Your task to perform on an android device: install app "Gboard" Image 0: 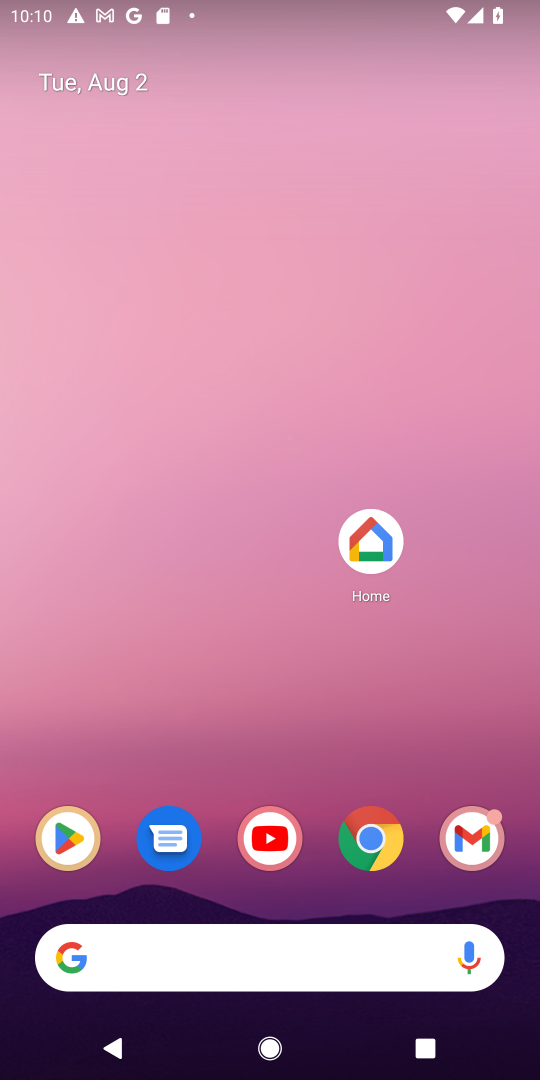
Step 0: drag from (224, 711) to (260, 172)
Your task to perform on an android device: install app "Gboard" Image 1: 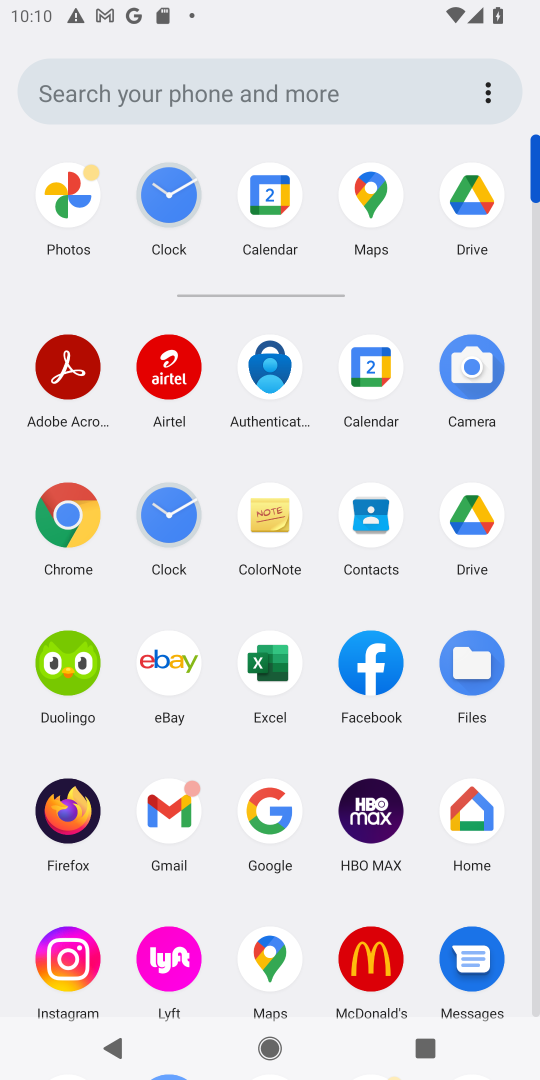
Step 1: drag from (210, 888) to (222, 506)
Your task to perform on an android device: install app "Gboard" Image 2: 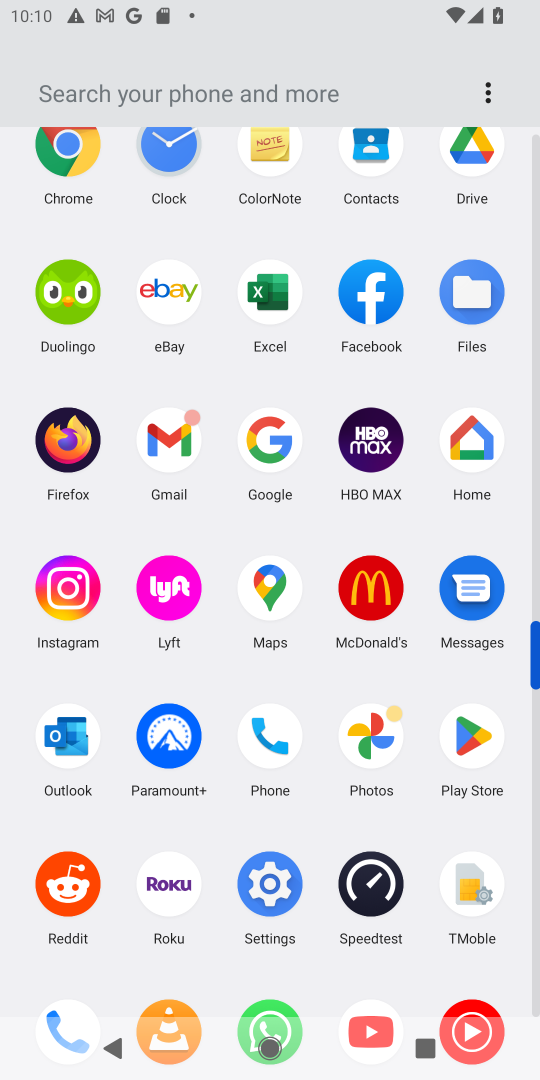
Step 2: drag from (217, 956) to (232, 641)
Your task to perform on an android device: install app "Gboard" Image 3: 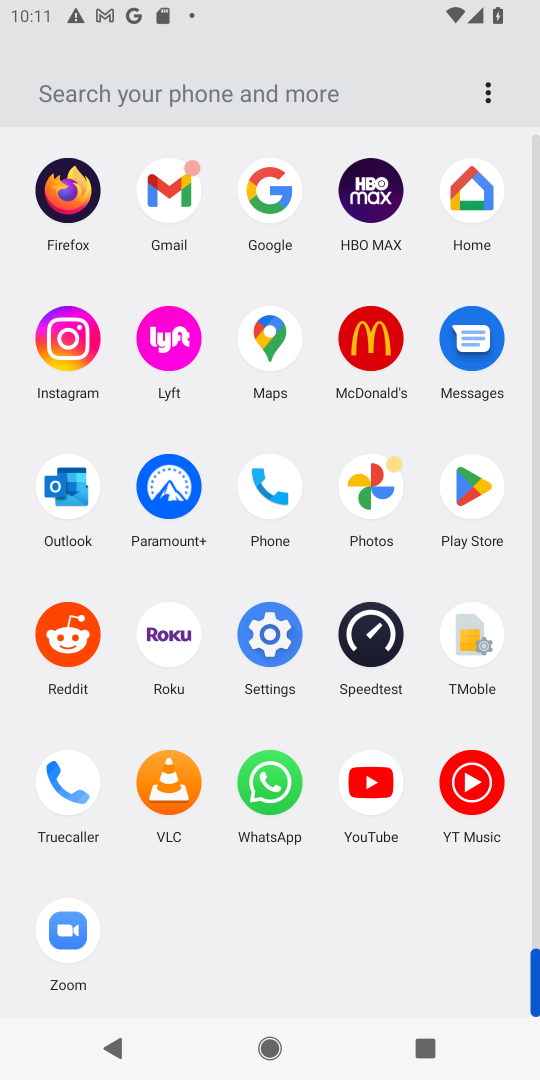
Step 3: click (470, 488)
Your task to perform on an android device: install app "Gboard" Image 4: 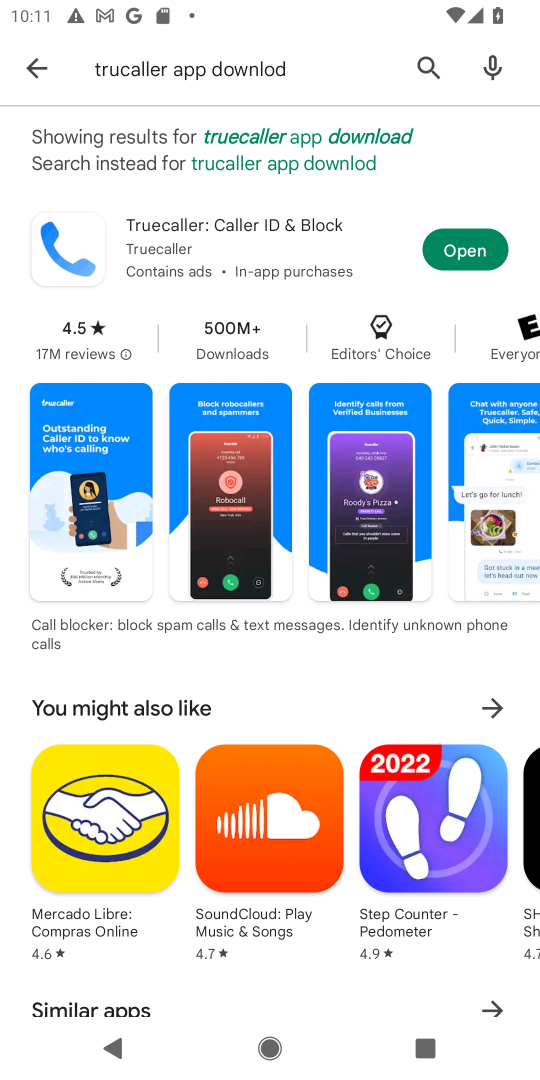
Step 4: click (422, 63)
Your task to perform on an android device: install app "Gboard" Image 5: 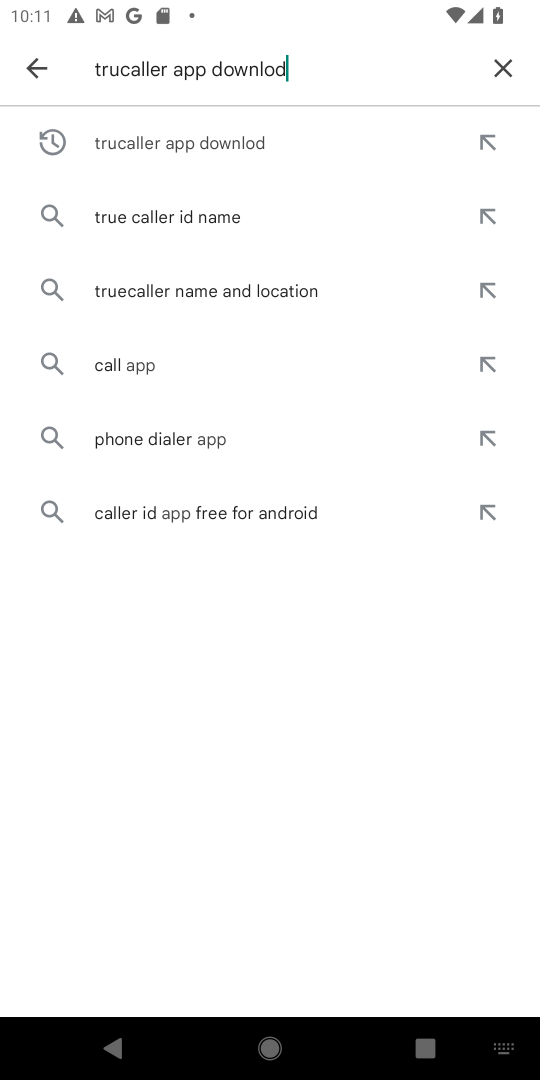
Step 5: click (501, 65)
Your task to perform on an android device: install app "Gboard" Image 6: 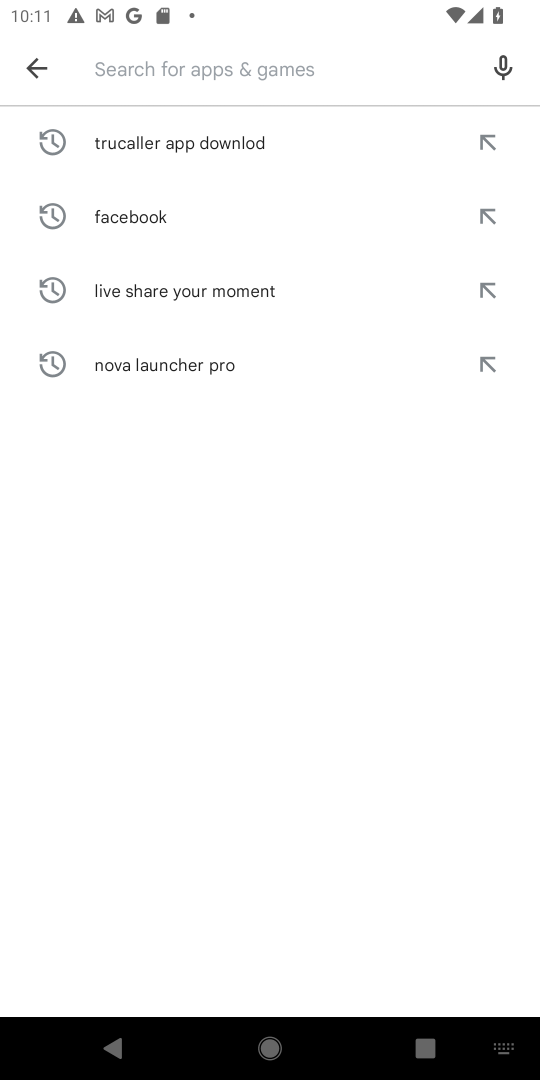
Step 6: type "gboard"
Your task to perform on an android device: install app "Gboard" Image 7: 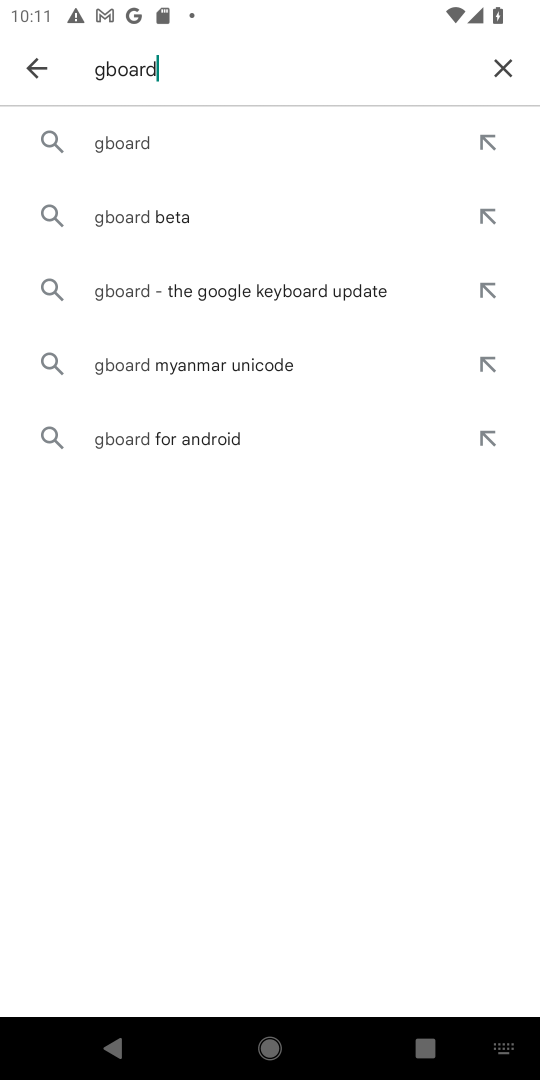
Step 7: click (188, 140)
Your task to perform on an android device: install app "Gboard" Image 8: 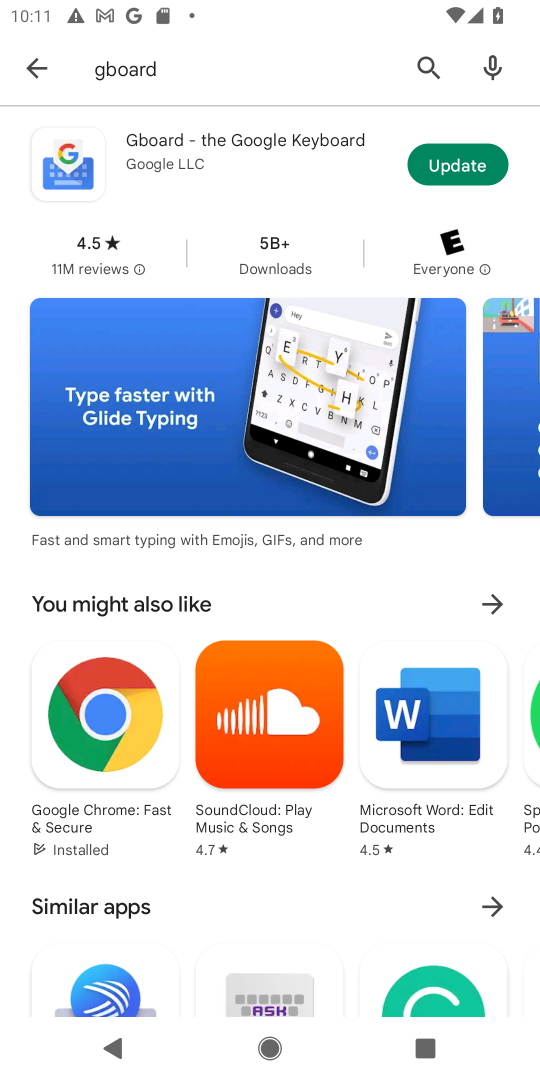
Step 8: task complete